Your task to perform on an android device: Go to Amazon Image 0: 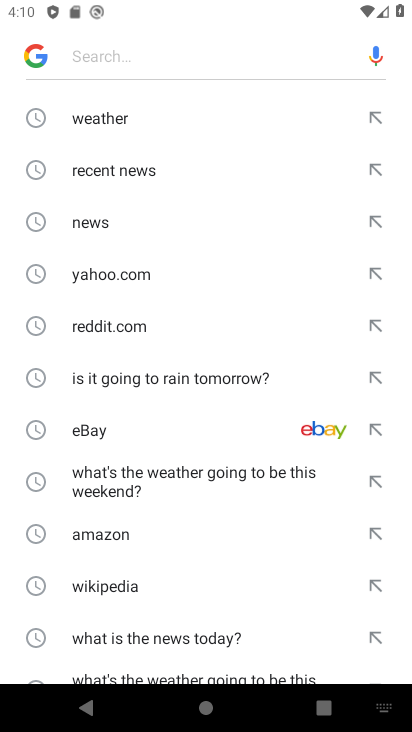
Step 0: press back button
Your task to perform on an android device: Go to Amazon Image 1: 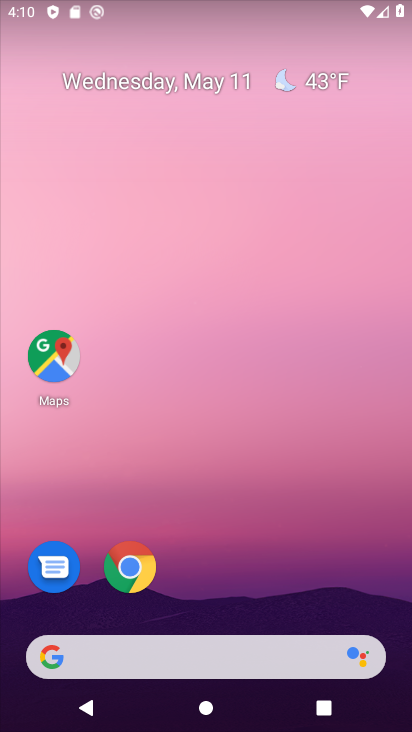
Step 1: click (141, 569)
Your task to perform on an android device: Go to Amazon Image 2: 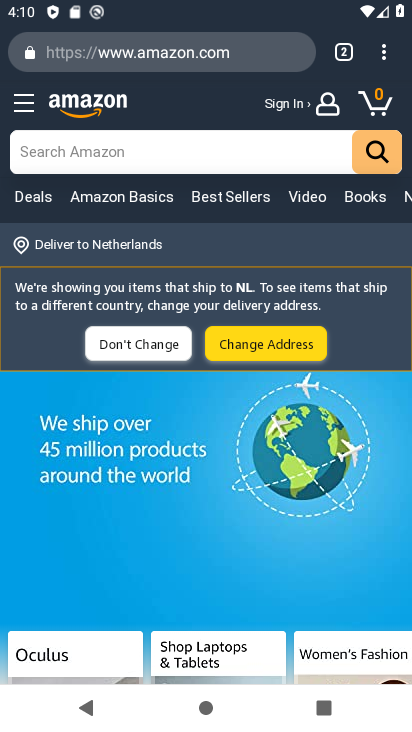
Step 2: task complete